Your task to perform on an android device: open wifi settings Image 0: 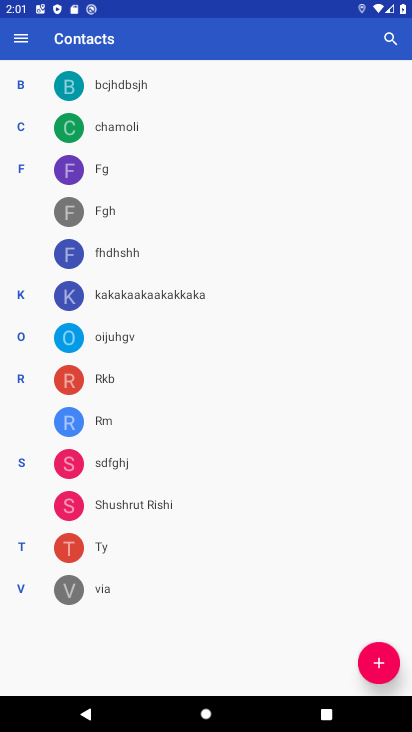
Step 0: press home button
Your task to perform on an android device: open wifi settings Image 1: 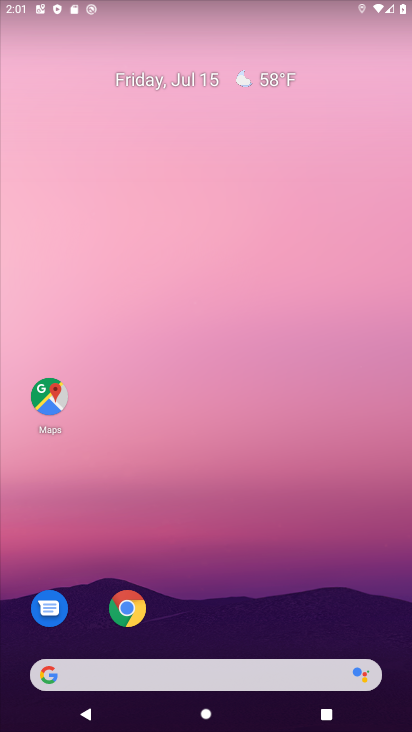
Step 1: drag from (334, 1) to (262, 457)
Your task to perform on an android device: open wifi settings Image 2: 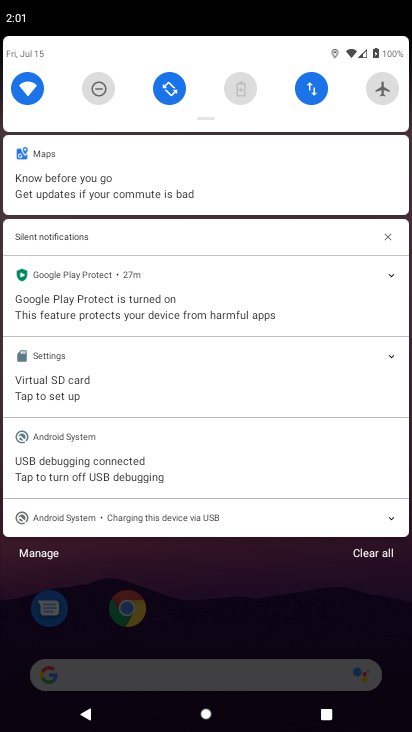
Step 2: click (31, 87)
Your task to perform on an android device: open wifi settings Image 3: 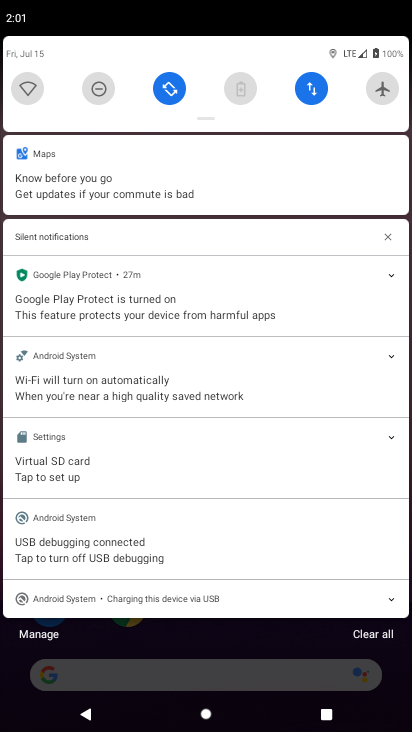
Step 3: task complete